Your task to perform on an android device: turn off wifi Image 0: 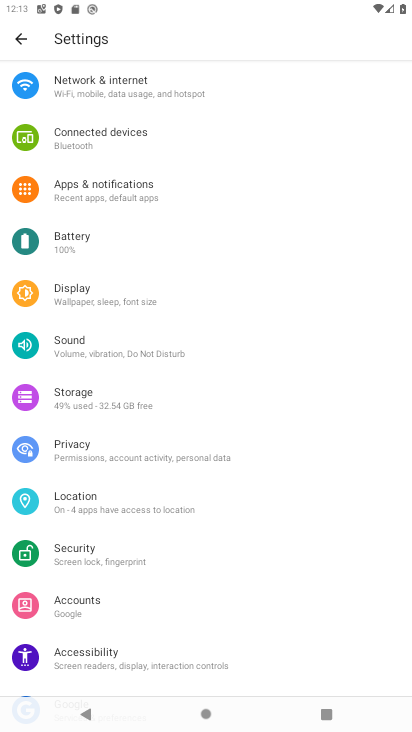
Step 0: click (126, 98)
Your task to perform on an android device: turn off wifi Image 1: 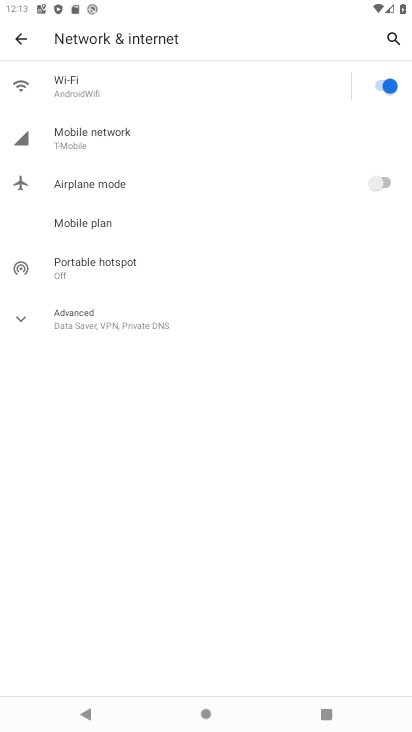
Step 1: click (380, 85)
Your task to perform on an android device: turn off wifi Image 2: 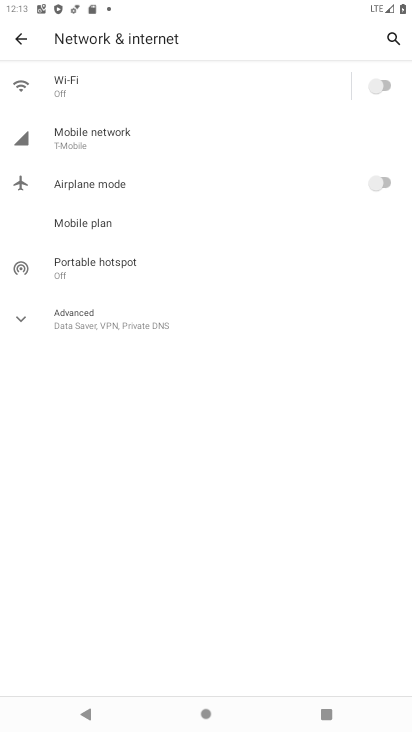
Step 2: task complete